Your task to perform on an android device: Do I have any events tomorrow? Image 0: 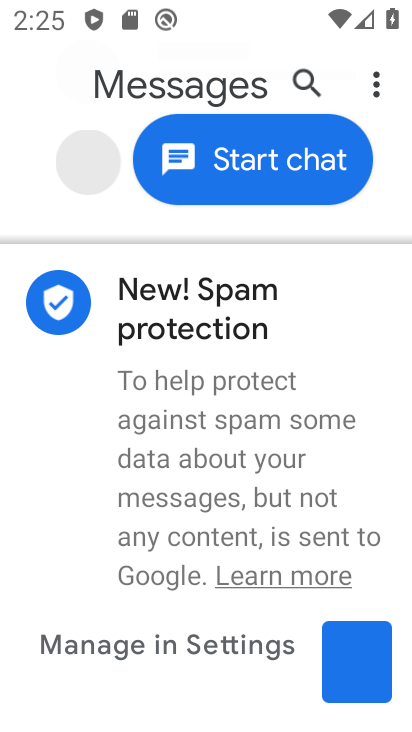
Step 0: press home button
Your task to perform on an android device: Do I have any events tomorrow? Image 1: 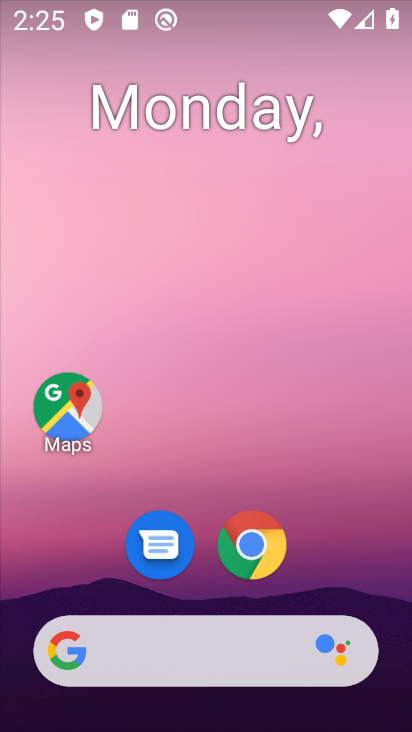
Step 1: drag from (197, 586) to (289, 82)
Your task to perform on an android device: Do I have any events tomorrow? Image 2: 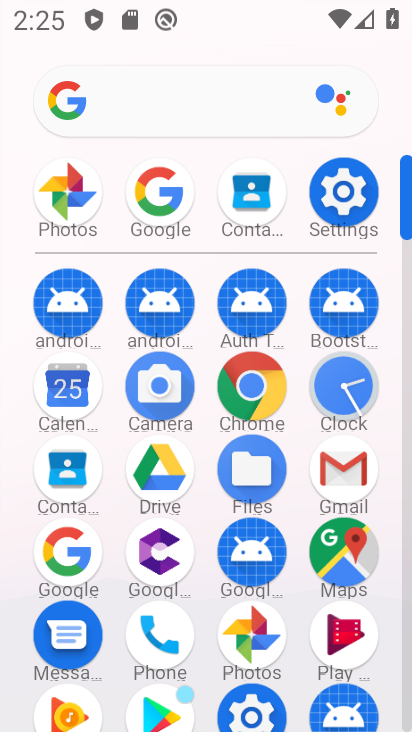
Step 2: click (70, 402)
Your task to perform on an android device: Do I have any events tomorrow? Image 3: 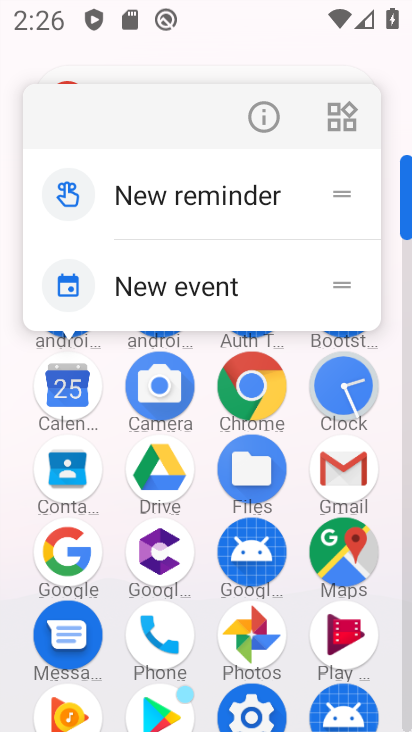
Step 3: click (77, 389)
Your task to perform on an android device: Do I have any events tomorrow? Image 4: 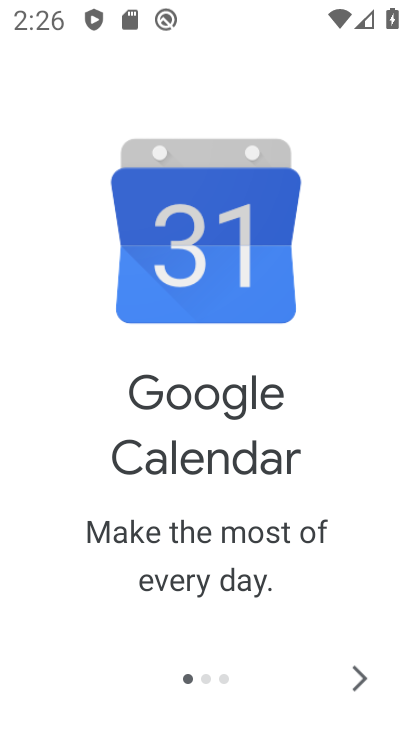
Step 4: click (349, 675)
Your task to perform on an android device: Do I have any events tomorrow? Image 5: 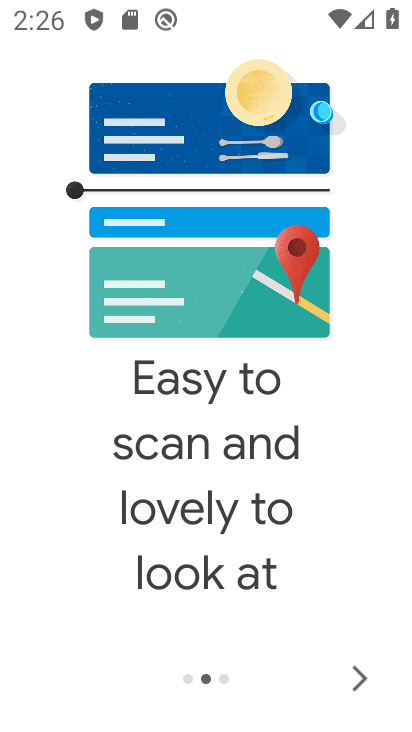
Step 5: click (359, 677)
Your task to perform on an android device: Do I have any events tomorrow? Image 6: 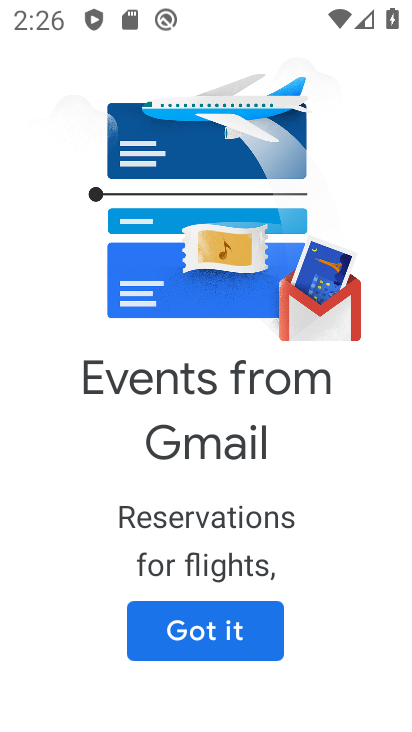
Step 6: click (188, 626)
Your task to perform on an android device: Do I have any events tomorrow? Image 7: 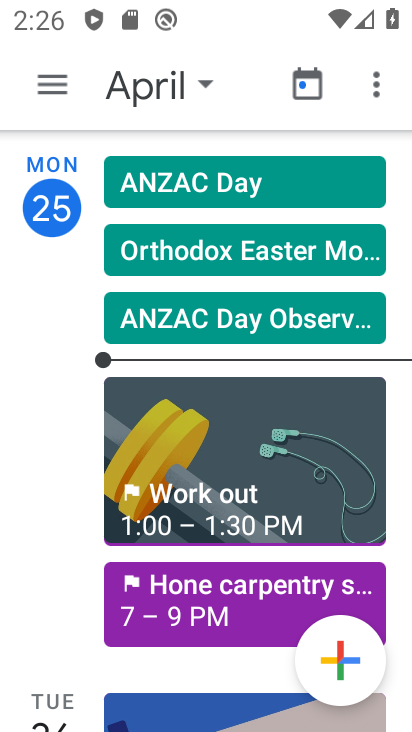
Step 7: click (177, 91)
Your task to perform on an android device: Do I have any events tomorrow? Image 8: 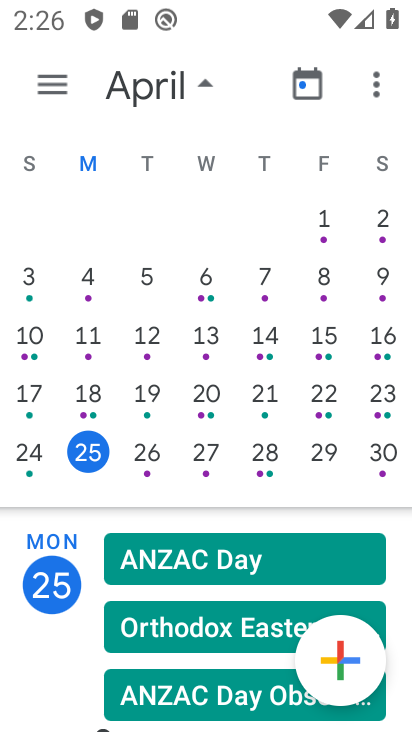
Step 8: drag from (190, 609) to (285, 108)
Your task to perform on an android device: Do I have any events tomorrow? Image 9: 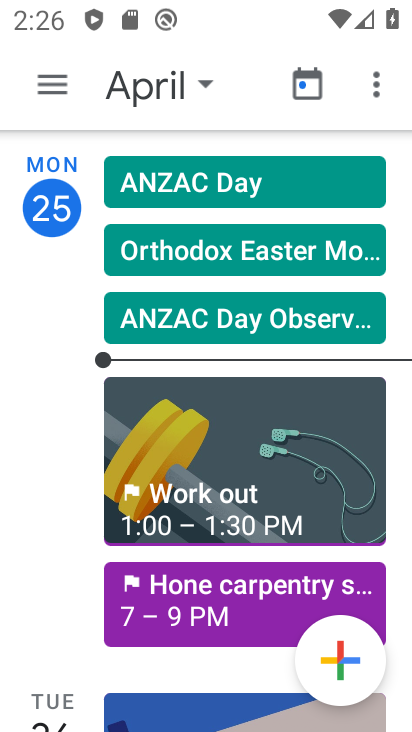
Step 9: drag from (171, 674) to (286, 229)
Your task to perform on an android device: Do I have any events tomorrow? Image 10: 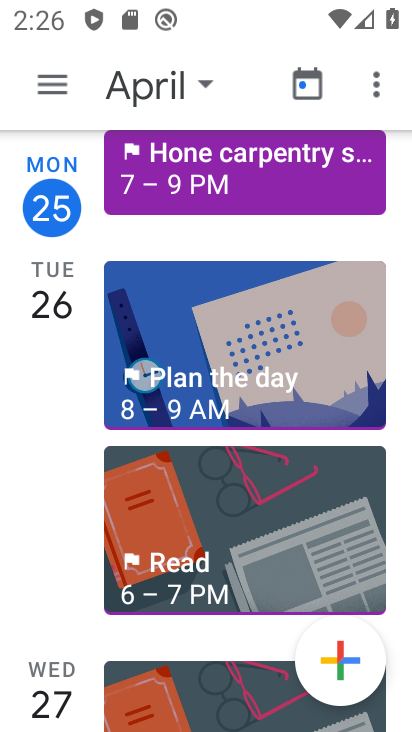
Step 10: drag from (203, 562) to (203, 506)
Your task to perform on an android device: Do I have any events tomorrow? Image 11: 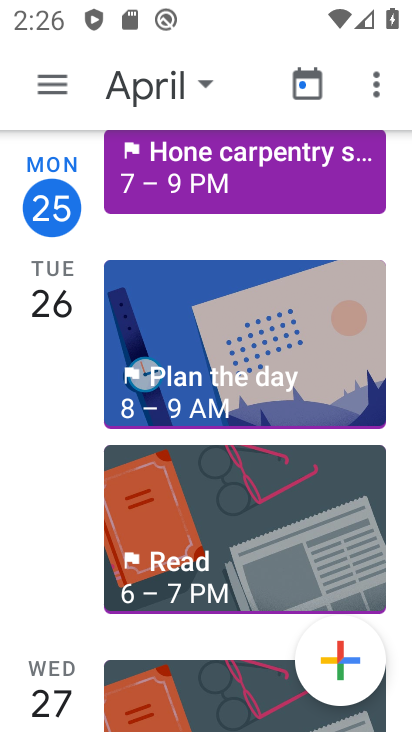
Step 11: click (172, 529)
Your task to perform on an android device: Do I have any events tomorrow? Image 12: 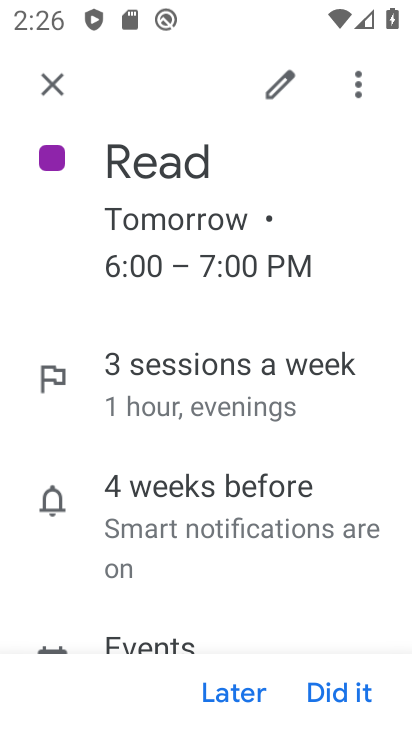
Step 12: task complete